Your task to perform on an android device: Go to calendar. Show me events next week Image 0: 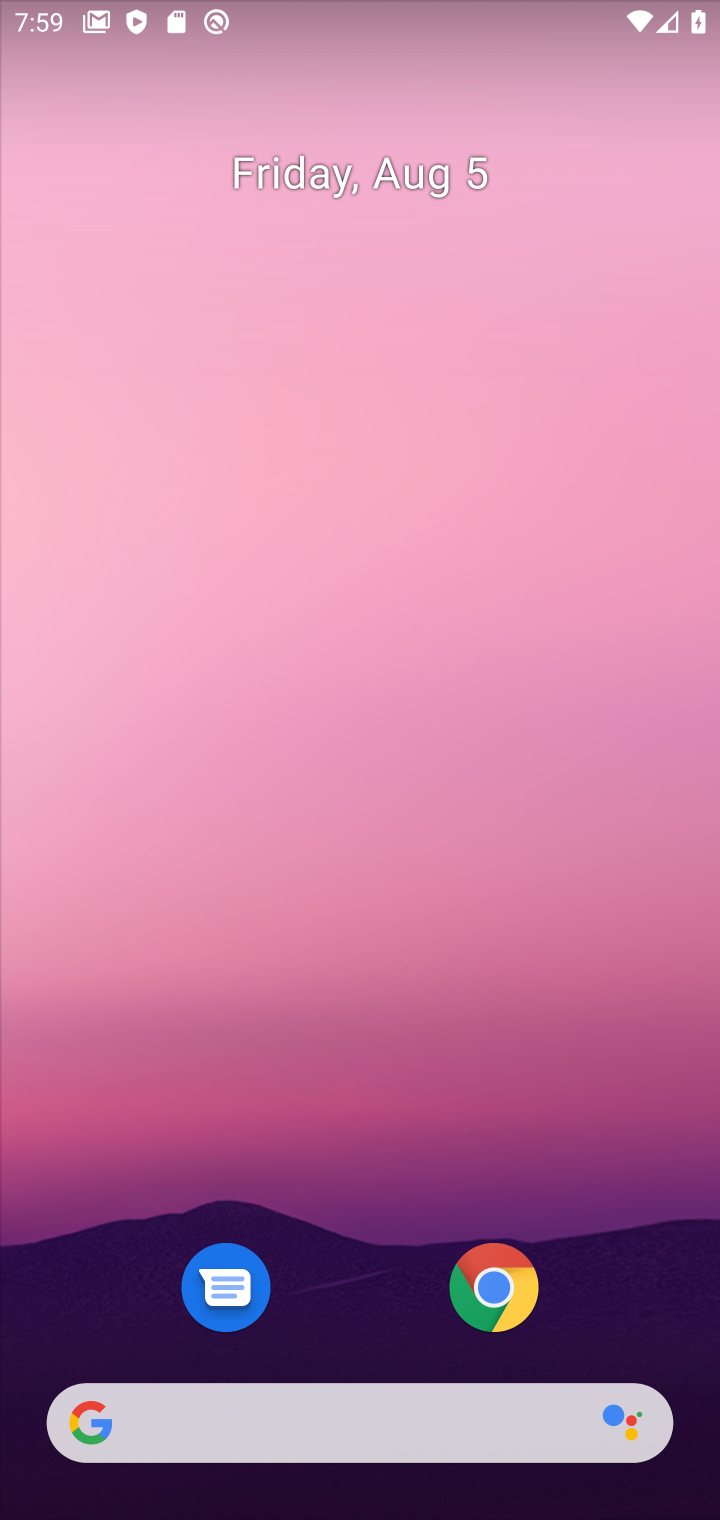
Step 0: drag from (343, 1332) to (379, 198)
Your task to perform on an android device: Go to calendar. Show me events next week Image 1: 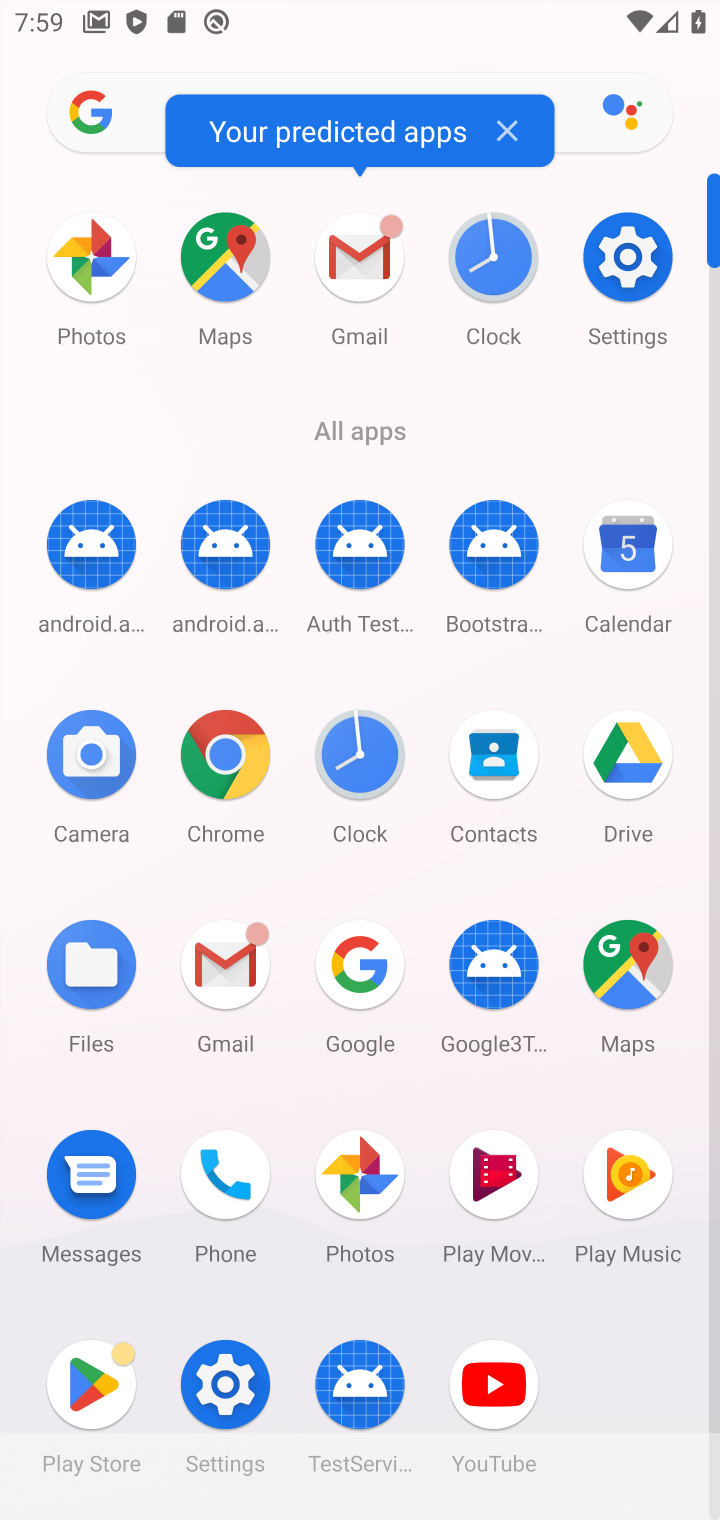
Step 1: click (625, 555)
Your task to perform on an android device: Go to calendar. Show me events next week Image 2: 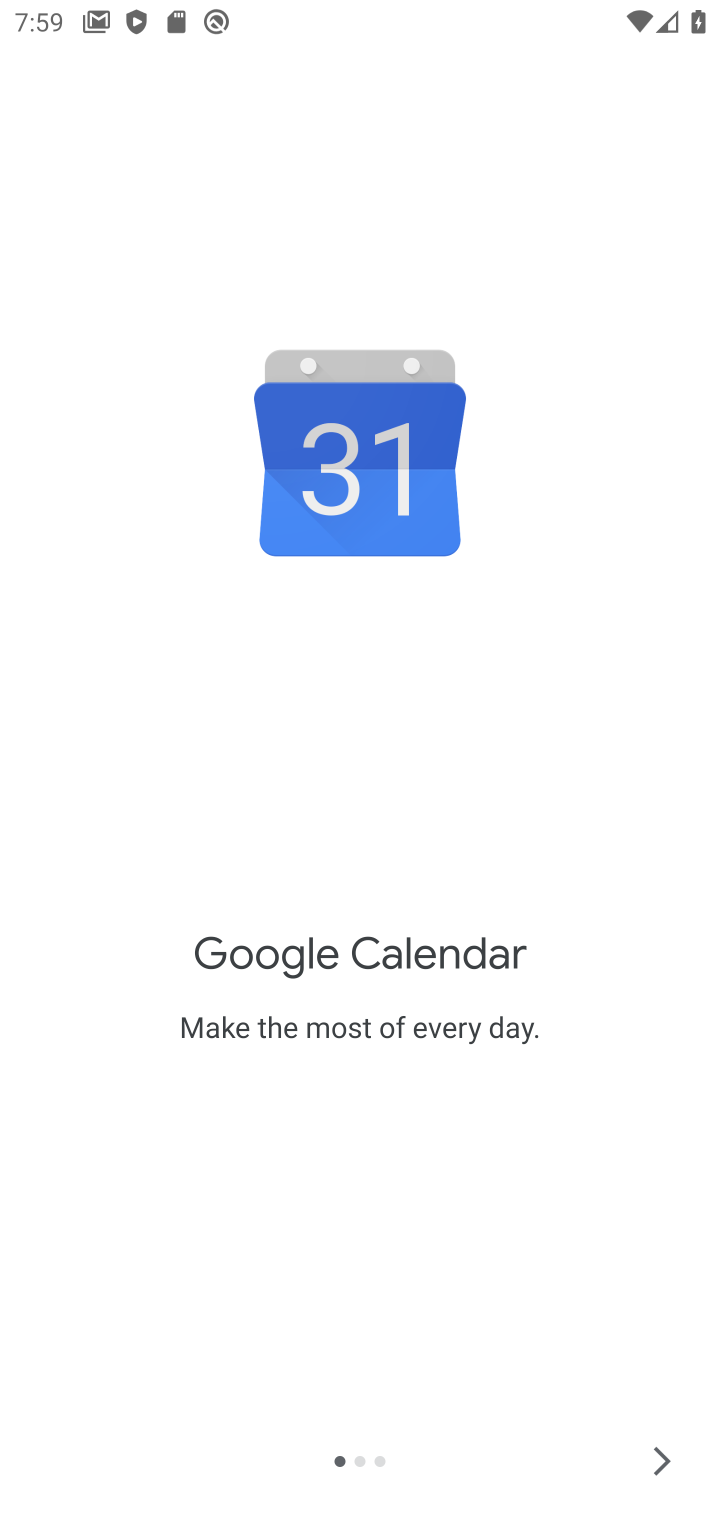
Step 2: click (658, 1448)
Your task to perform on an android device: Go to calendar. Show me events next week Image 3: 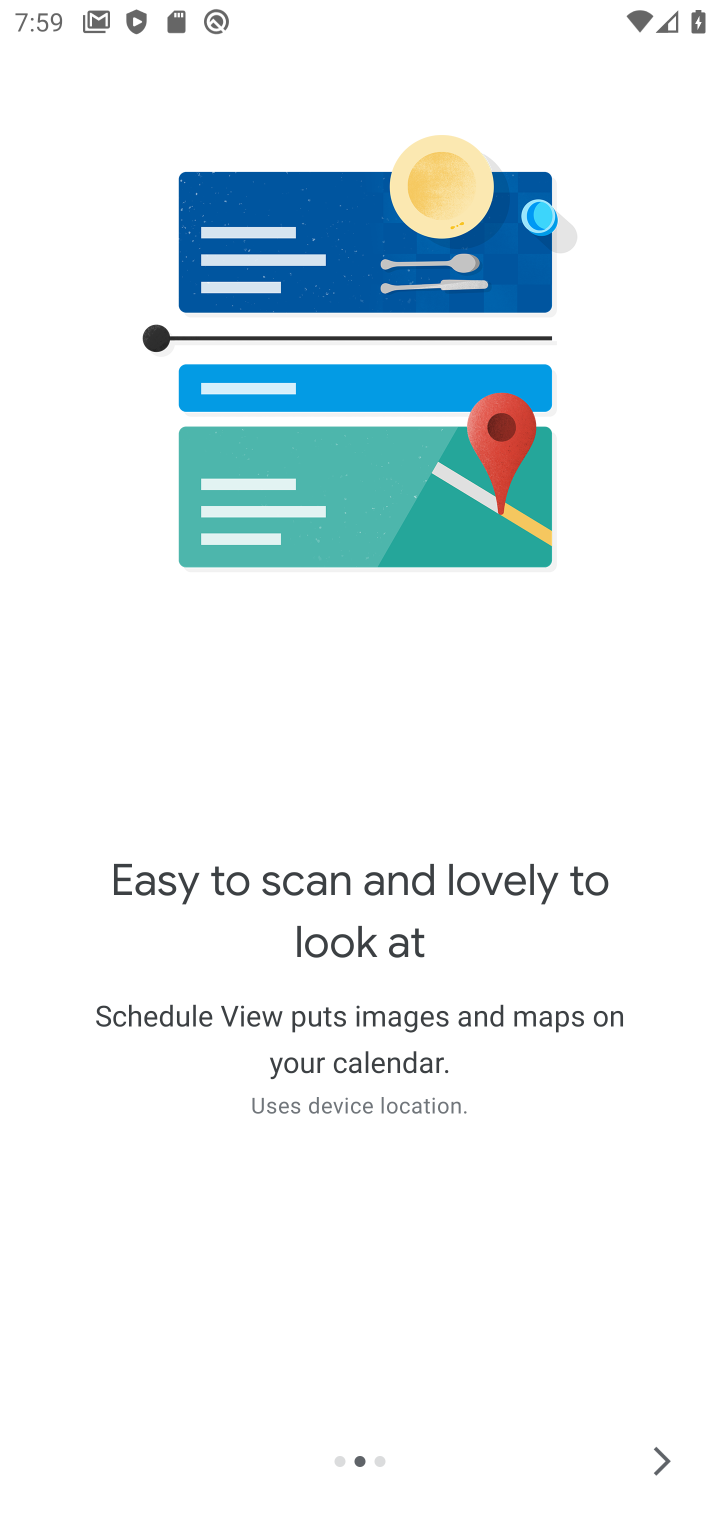
Step 3: click (647, 1455)
Your task to perform on an android device: Go to calendar. Show me events next week Image 4: 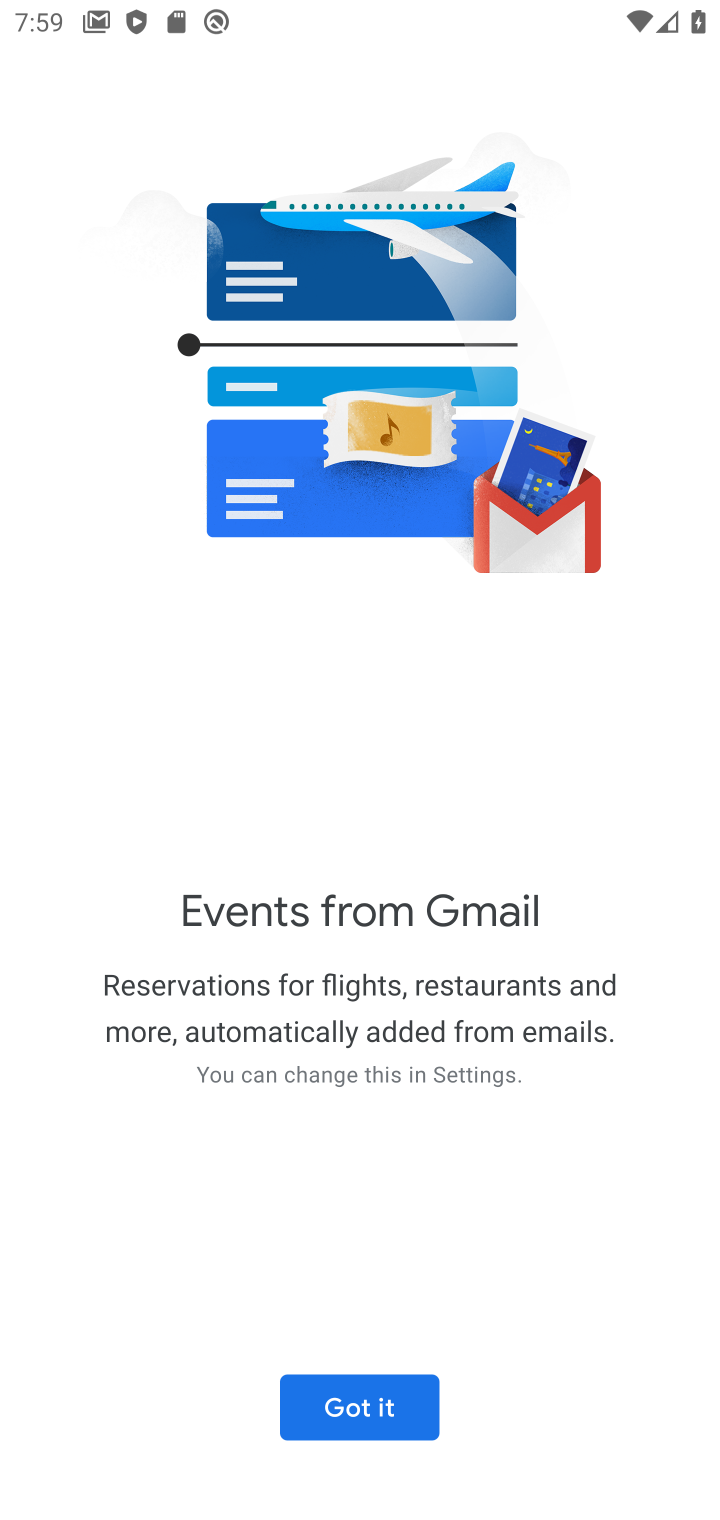
Step 4: click (658, 1453)
Your task to perform on an android device: Go to calendar. Show me events next week Image 5: 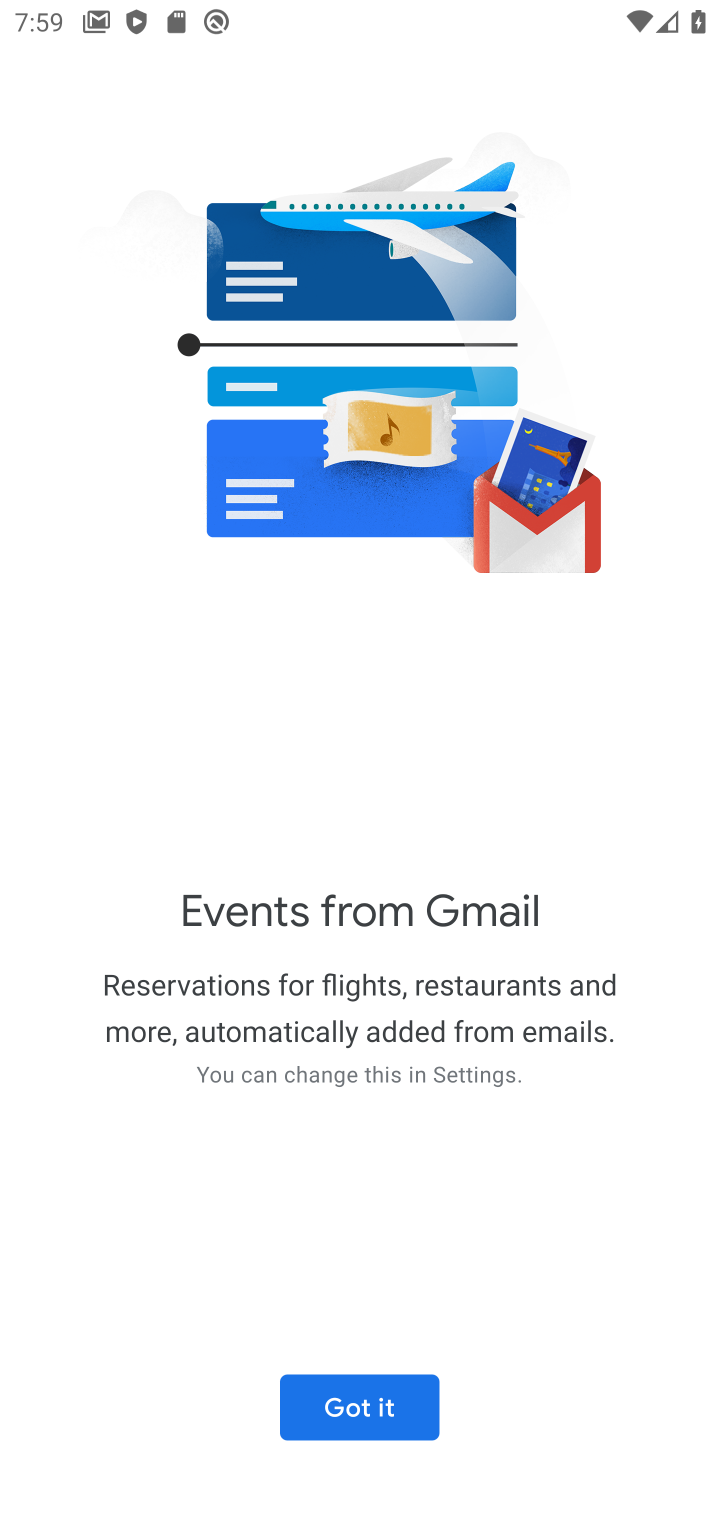
Step 5: click (351, 1421)
Your task to perform on an android device: Go to calendar. Show me events next week Image 6: 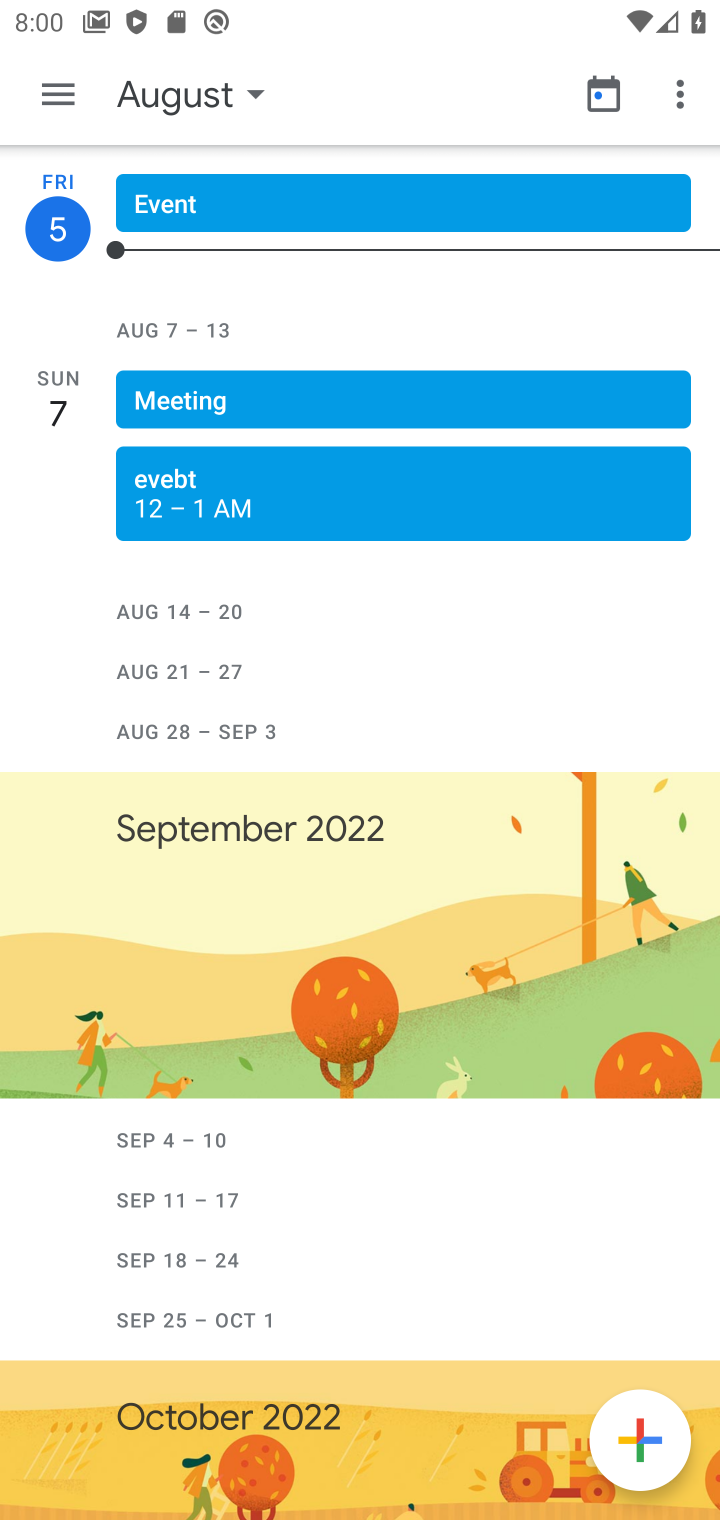
Step 6: click (248, 91)
Your task to perform on an android device: Go to calendar. Show me events next week Image 7: 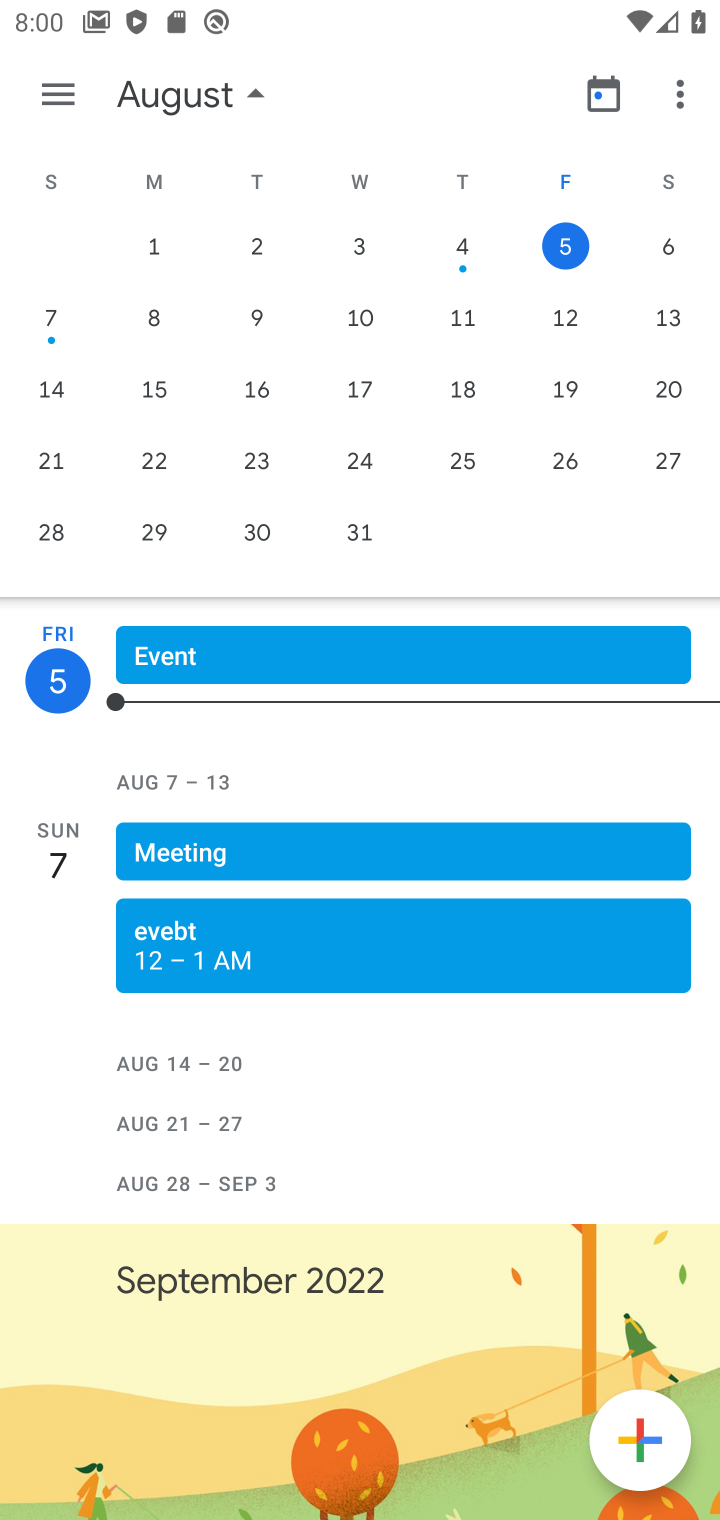
Step 7: click (537, 393)
Your task to perform on an android device: Go to calendar. Show me events next week Image 8: 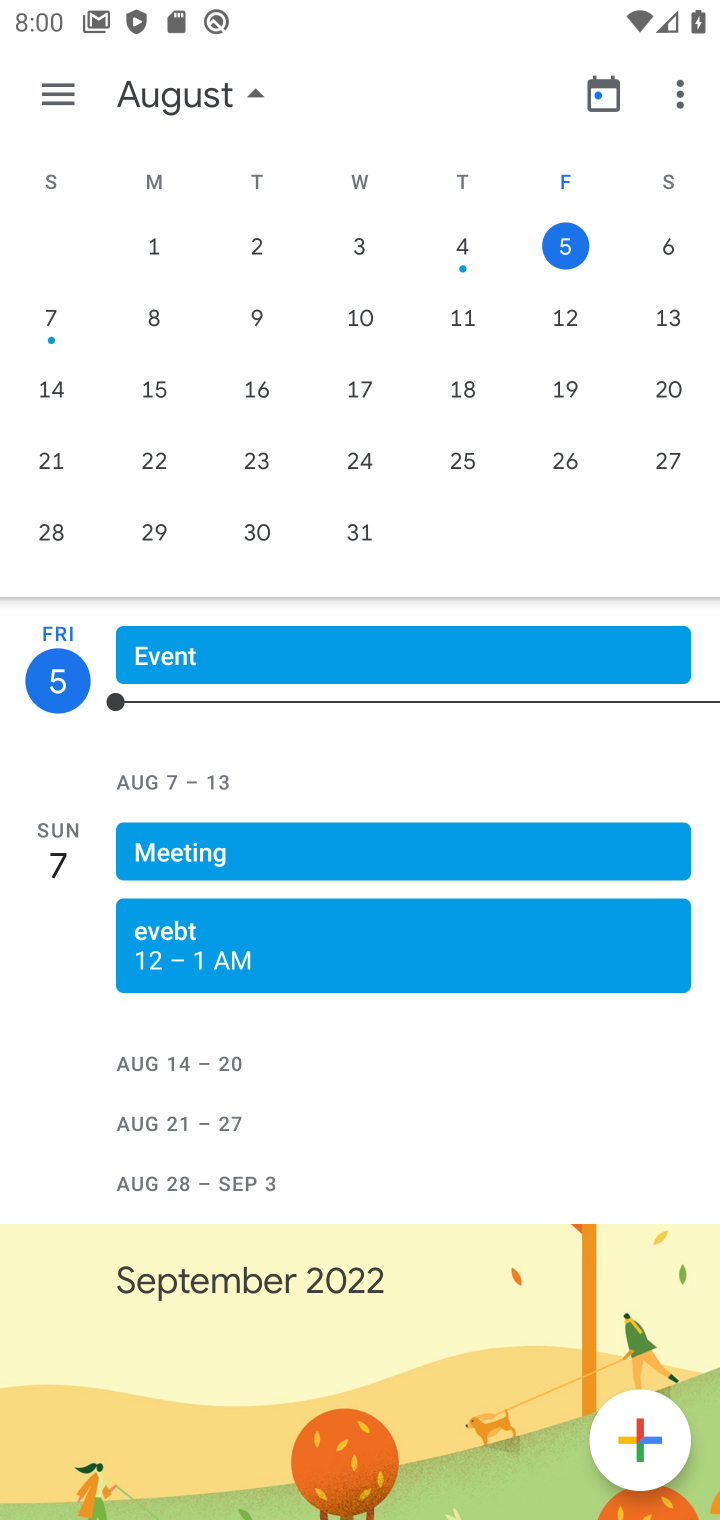
Step 8: click (145, 310)
Your task to perform on an android device: Go to calendar. Show me events next week Image 9: 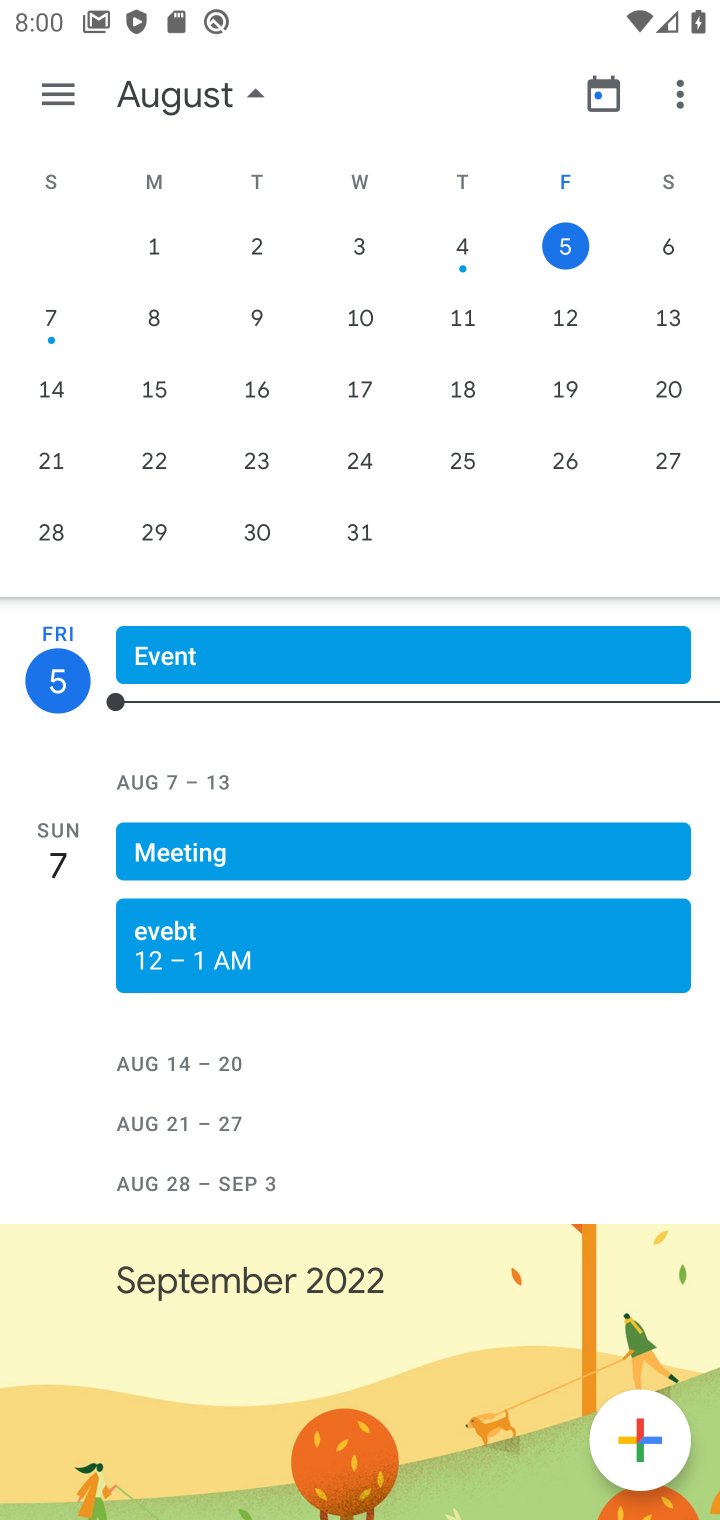
Step 9: click (143, 308)
Your task to perform on an android device: Go to calendar. Show me events next week Image 10: 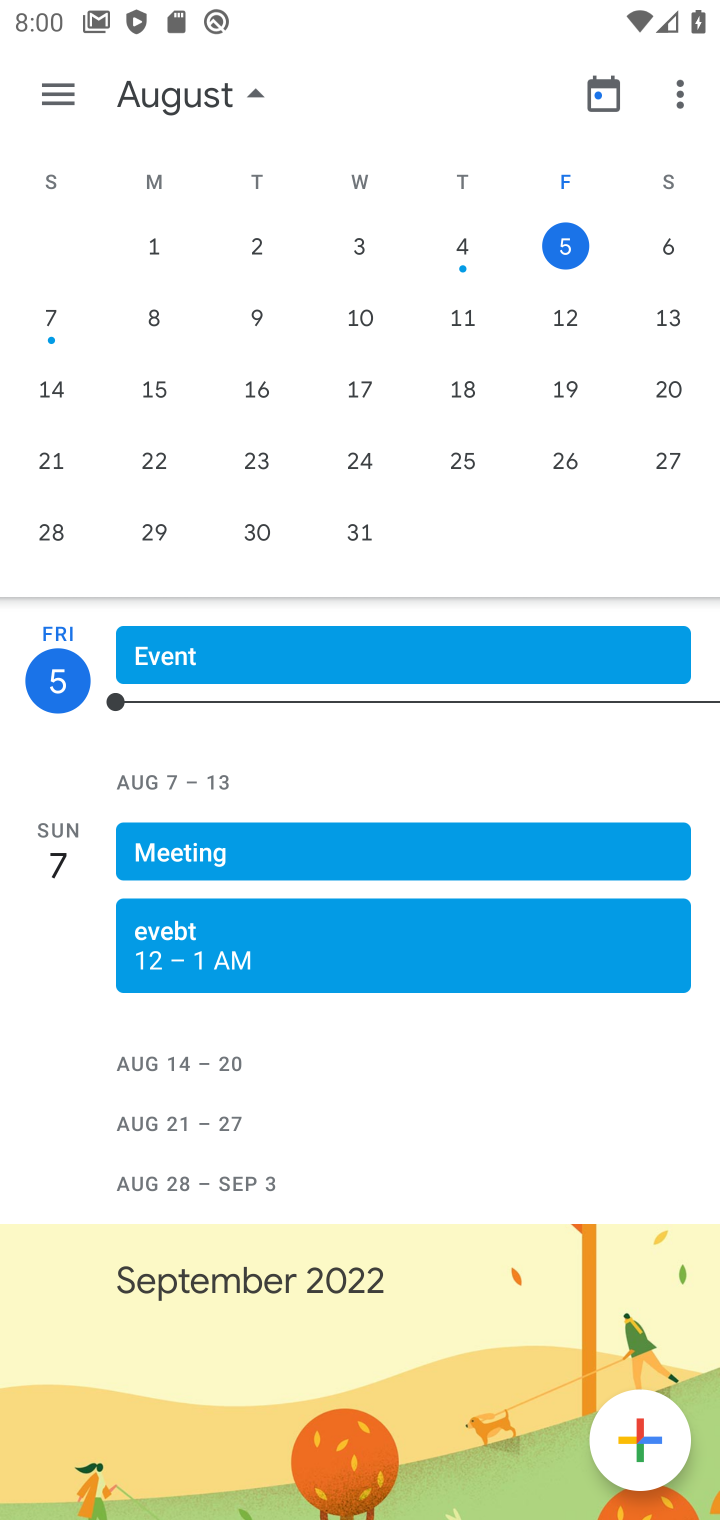
Step 10: click (155, 306)
Your task to perform on an android device: Go to calendar. Show me events next week Image 11: 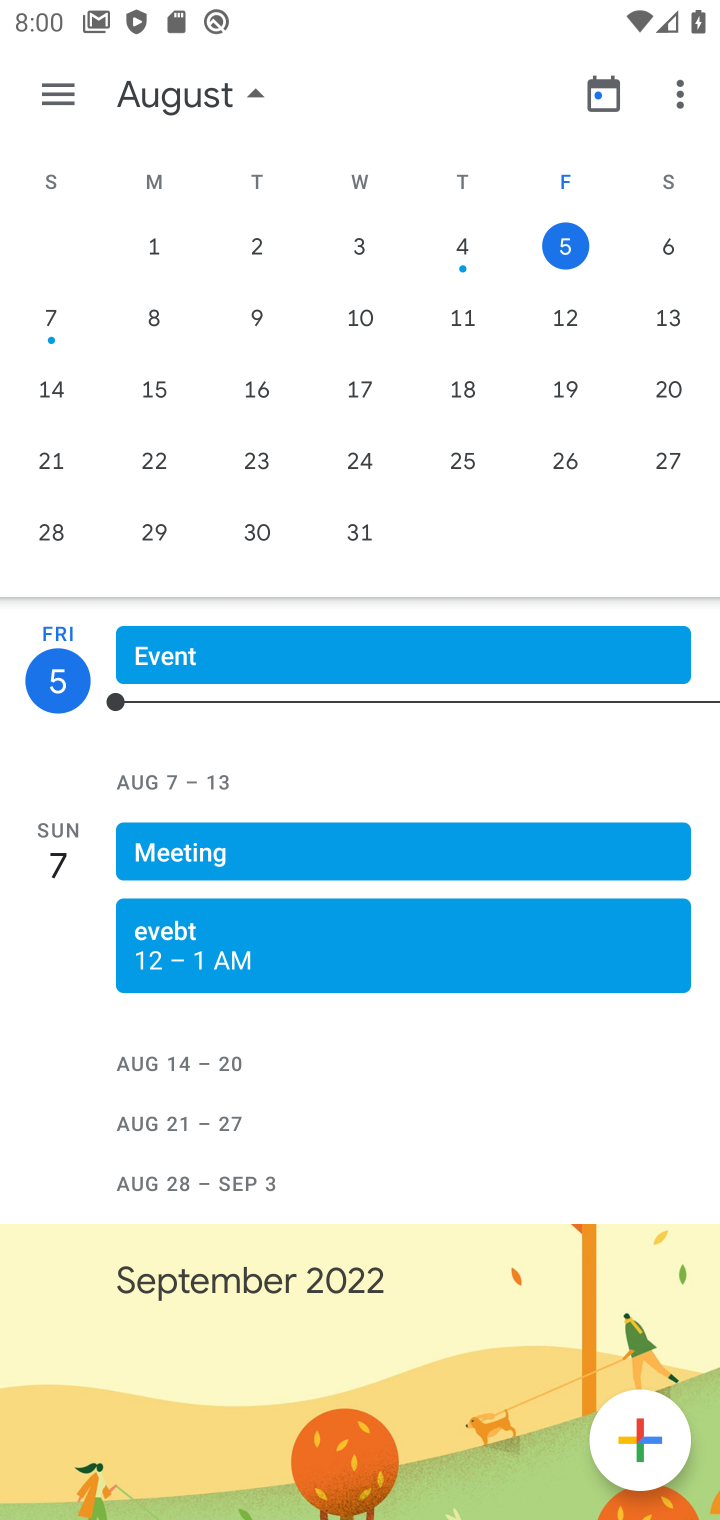
Step 11: drag from (514, 438) to (395, 437)
Your task to perform on an android device: Go to calendar. Show me events next week Image 12: 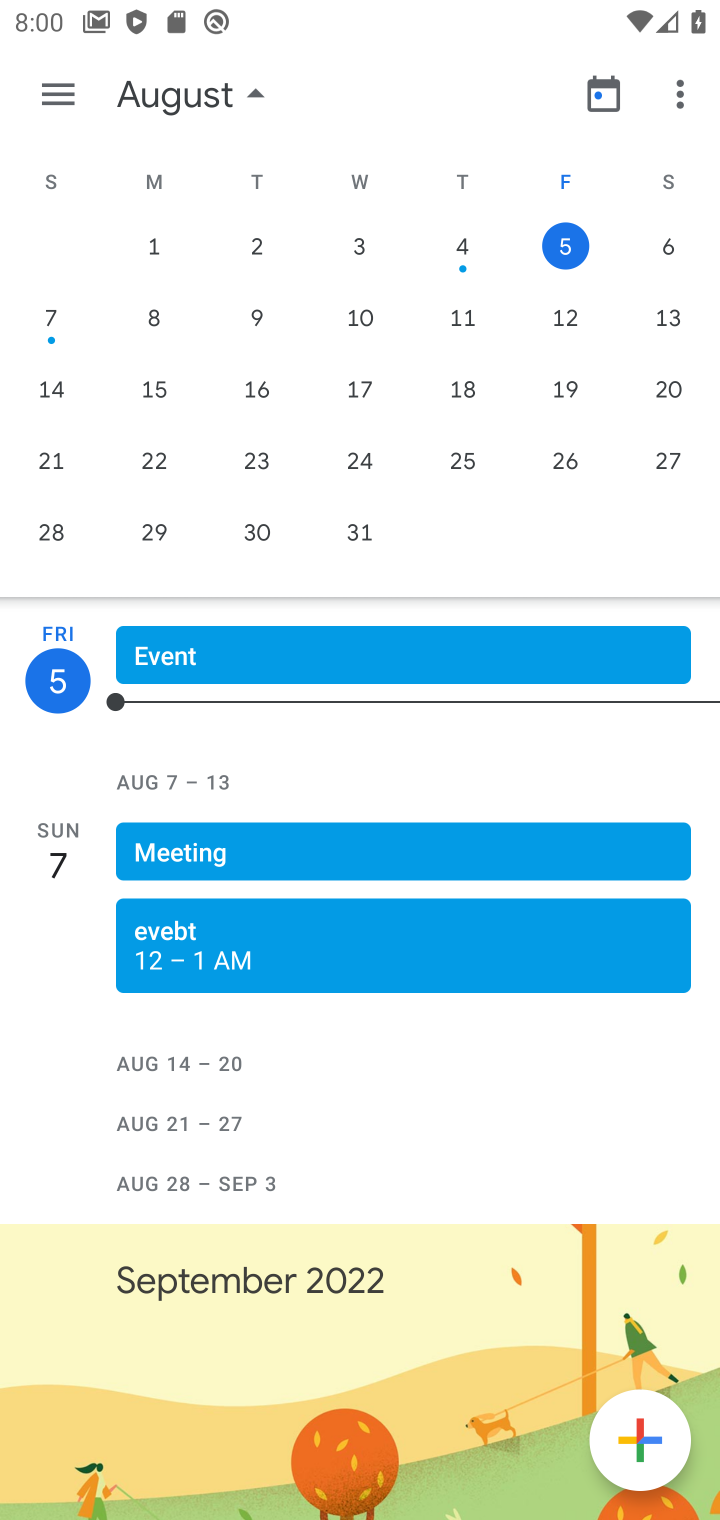
Step 12: click (156, 310)
Your task to perform on an android device: Go to calendar. Show me events next week Image 13: 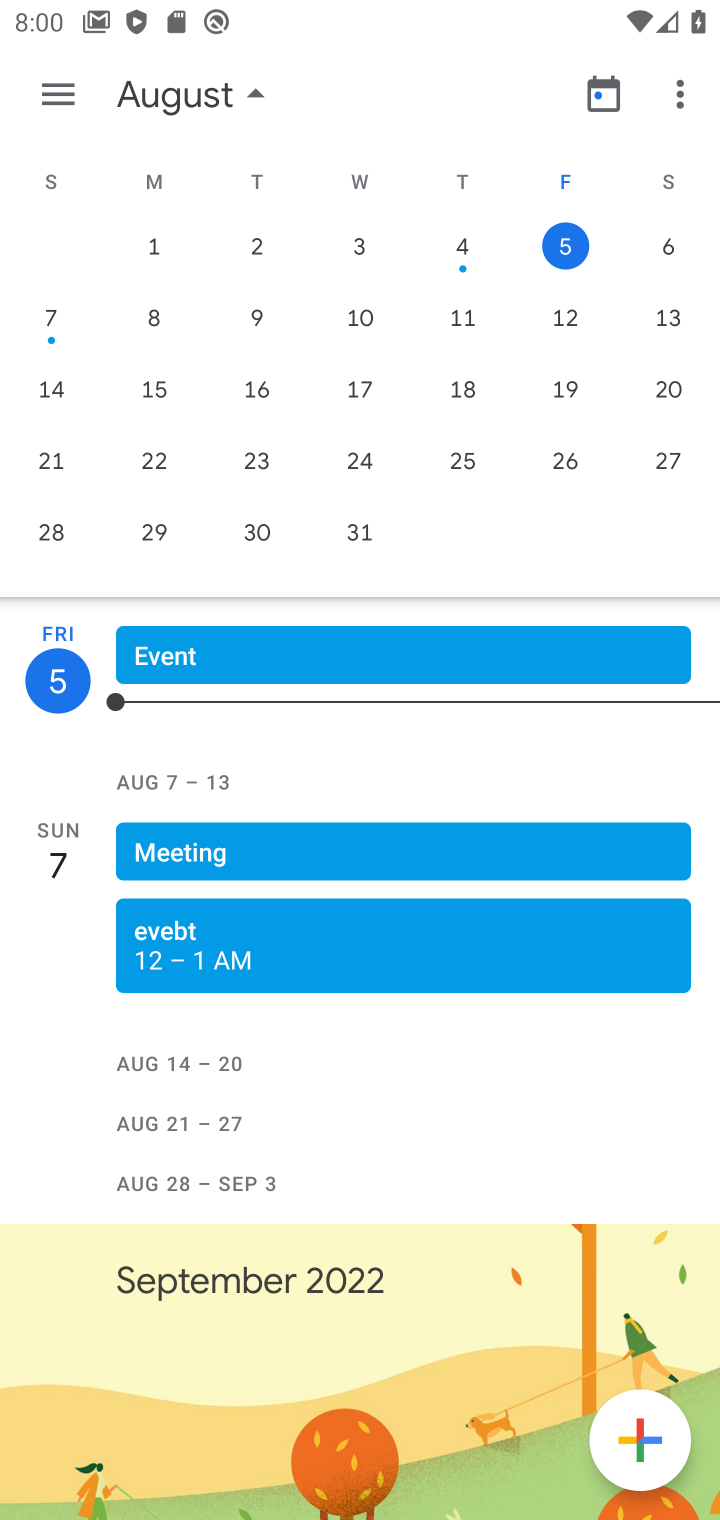
Step 13: click (154, 306)
Your task to perform on an android device: Go to calendar. Show me events next week Image 14: 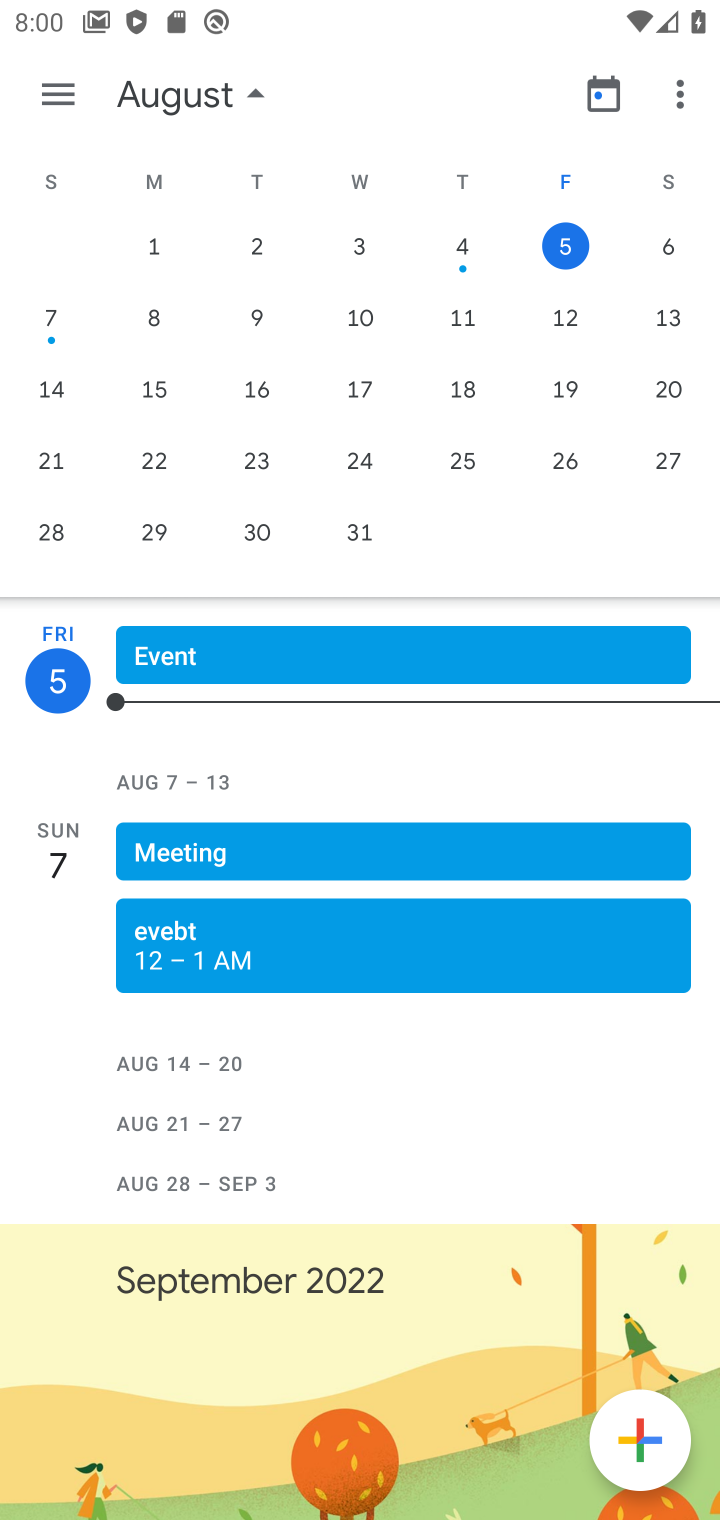
Step 14: click (152, 315)
Your task to perform on an android device: Go to calendar. Show me events next week Image 15: 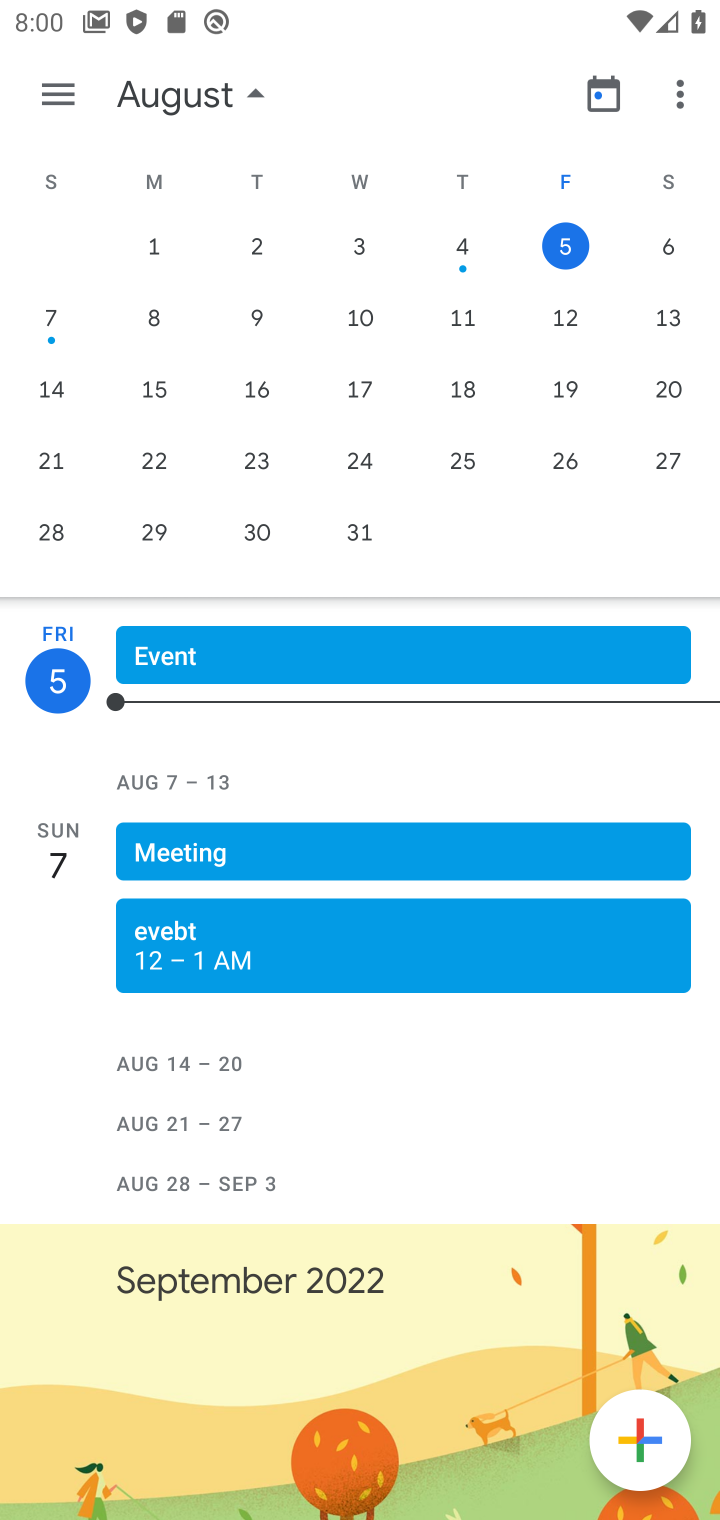
Step 15: click (161, 298)
Your task to perform on an android device: Go to calendar. Show me events next week Image 16: 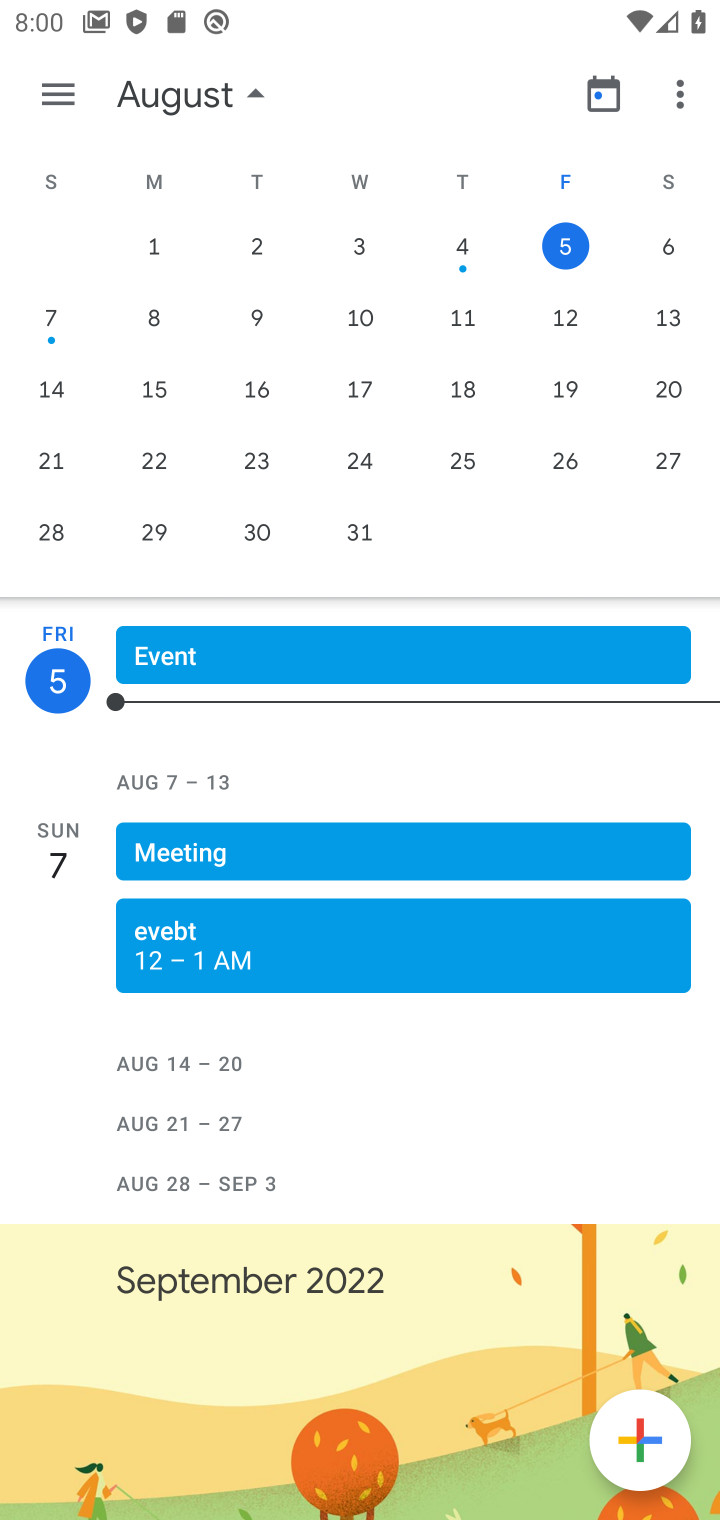
Step 16: click (159, 323)
Your task to perform on an android device: Go to calendar. Show me events next week Image 17: 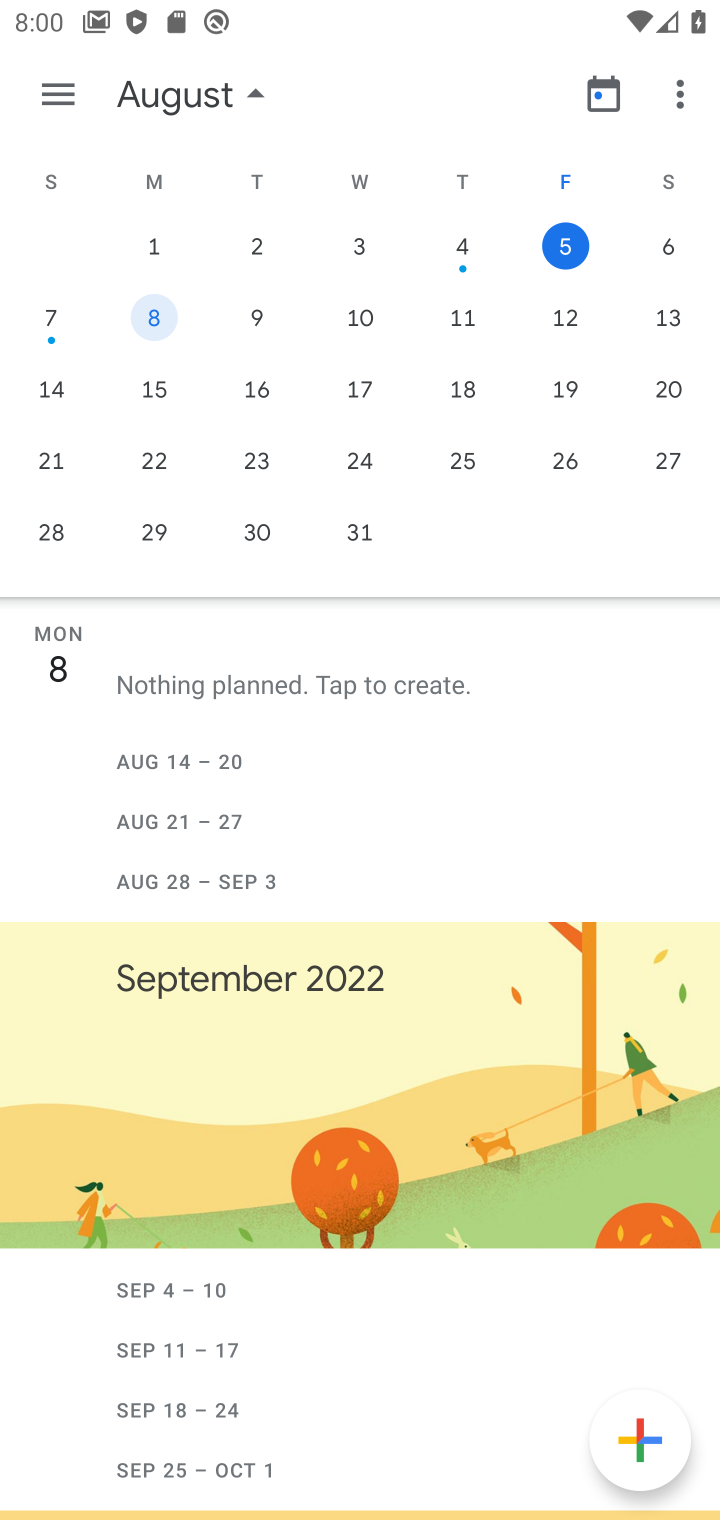
Step 17: click (42, 88)
Your task to perform on an android device: Go to calendar. Show me events next week Image 18: 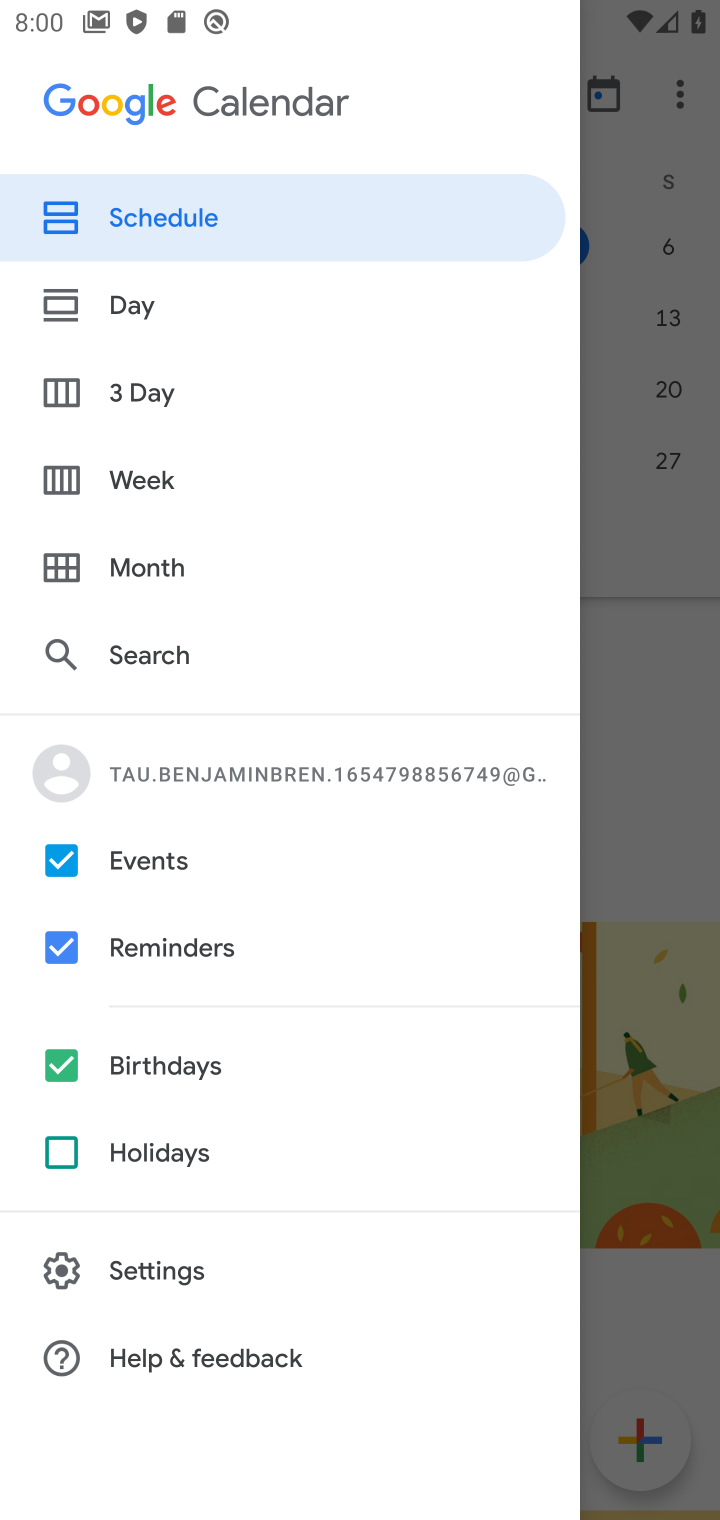
Step 18: click (60, 1065)
Your task to perform on an android device: Go to calendar. Show me events next week Image 19: 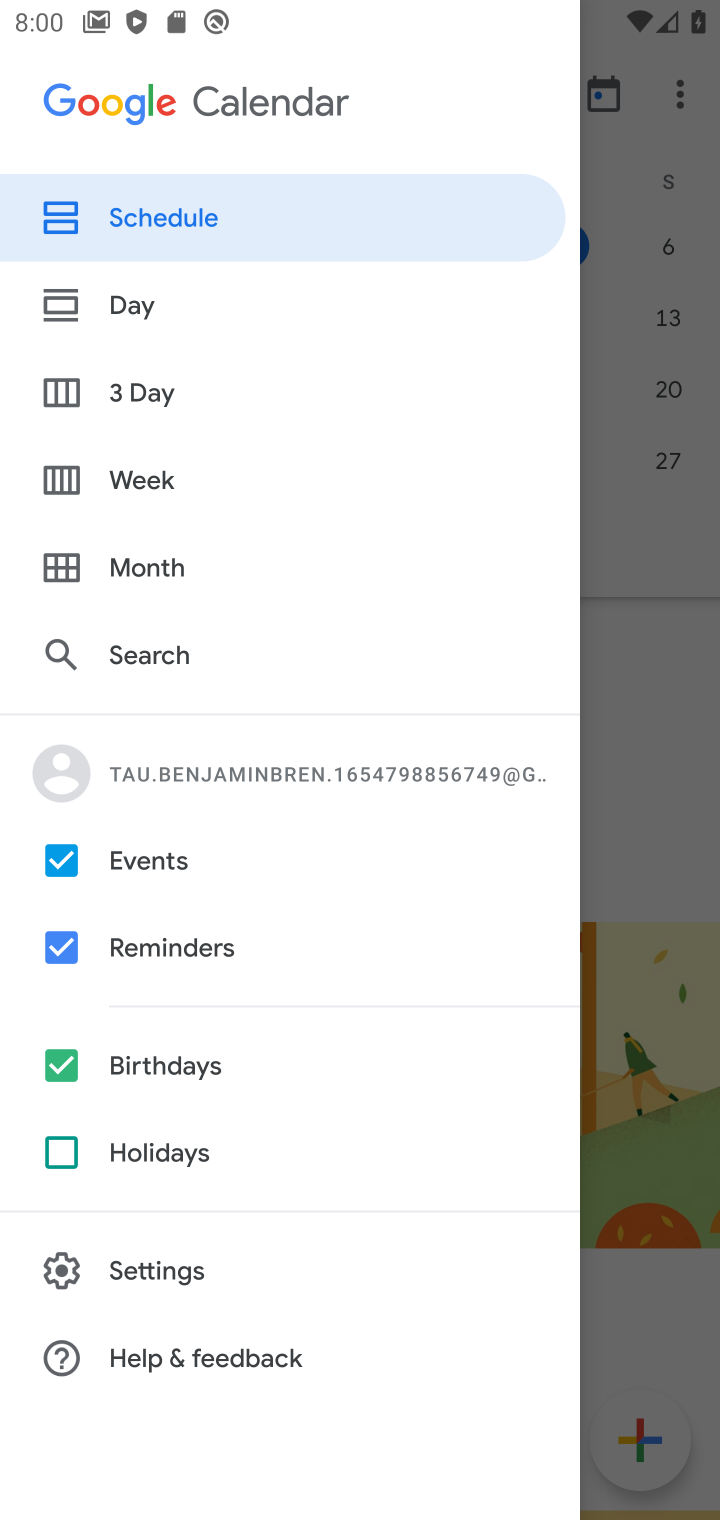
Step 19: click (59, 949)
Your task to perform on an android device: Go to calendar. Show me events next week Image 20: 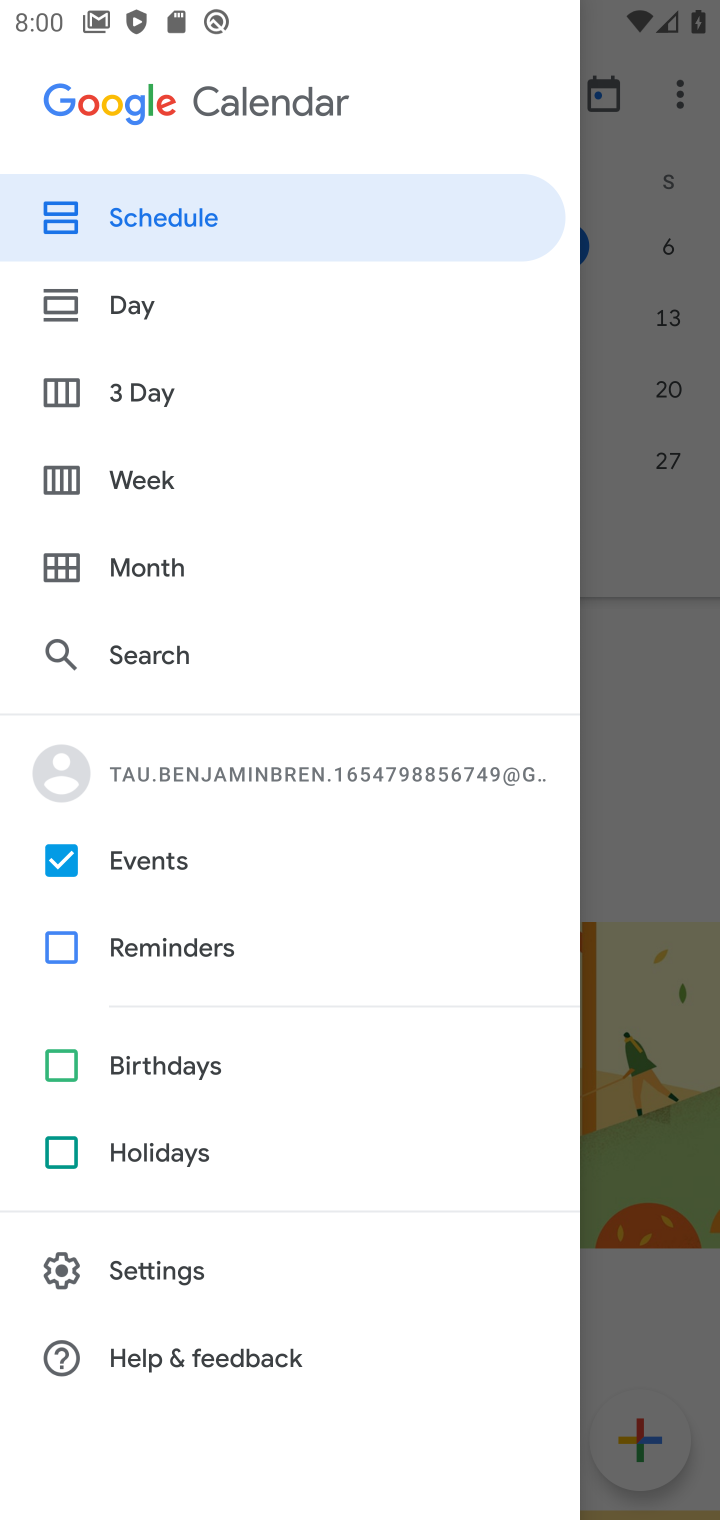
Step 20: click (170, 474)
Your task to perform on an android device: Go to calendar. Show me events next week Image 21: 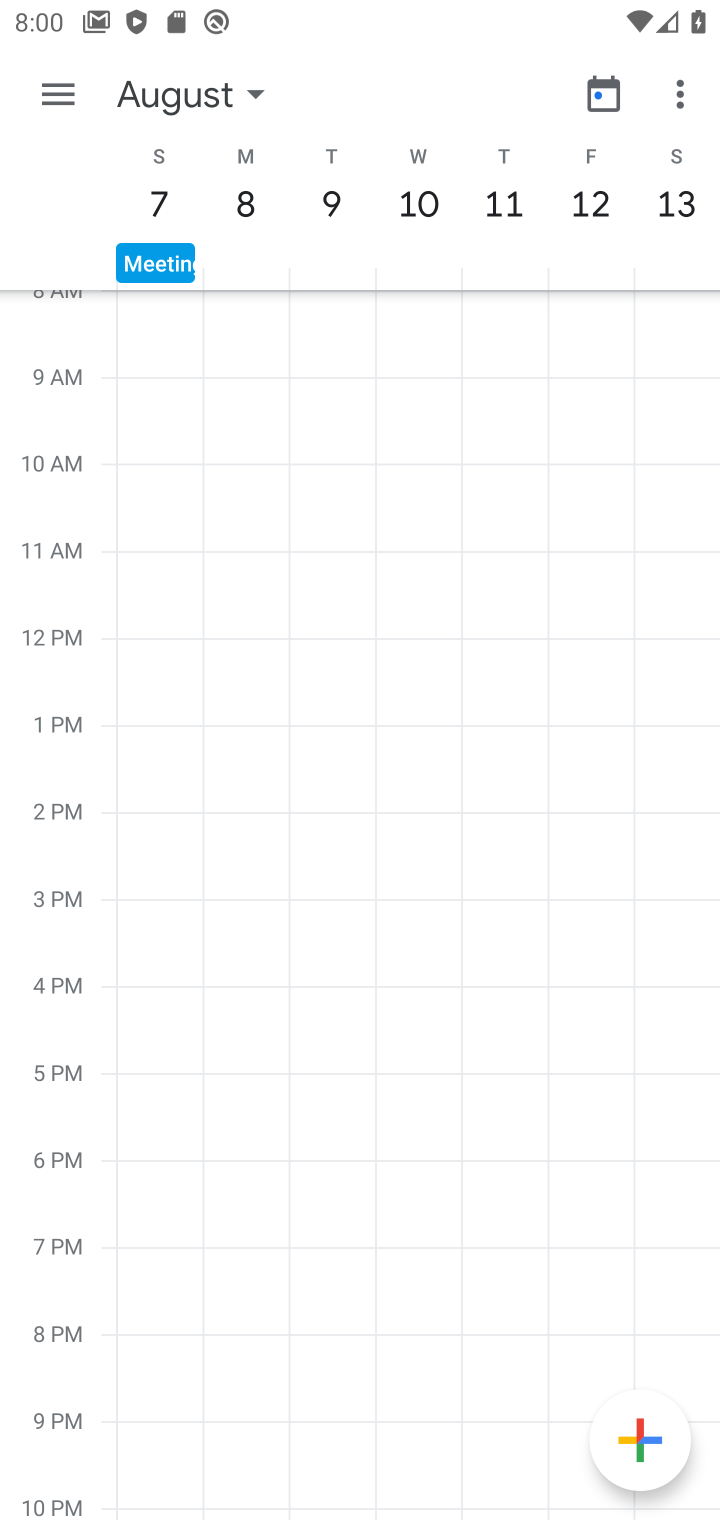
Step 21: task complete